Your task to perform on an android device: change the clock style Image 0: 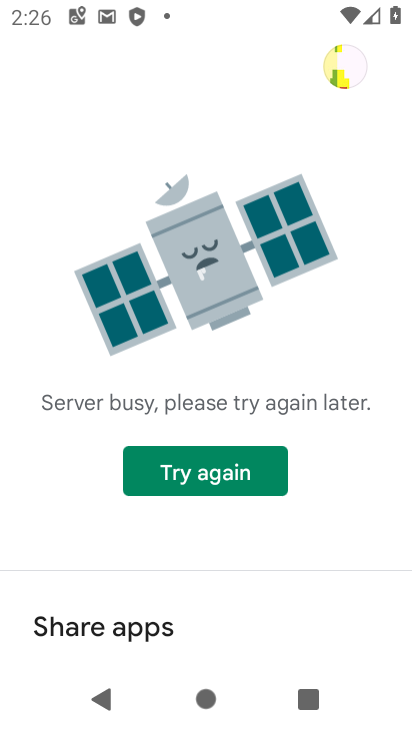
Step 0: press home button
Your task to perform on an android device: change the clock style Image 1: 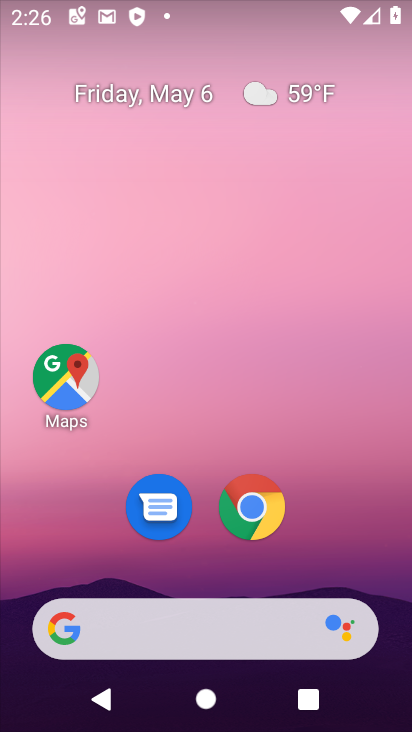
Step 1: drag from (284, 571) to (347, 104)
Your task to perform on an android device: change the clock style Image 2: 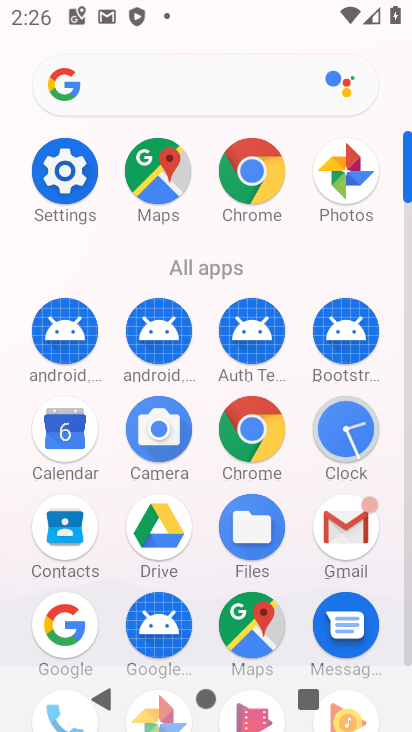
Step 2: click (352, 450)
Your task to perform on an android device: change the clock style Image 3: 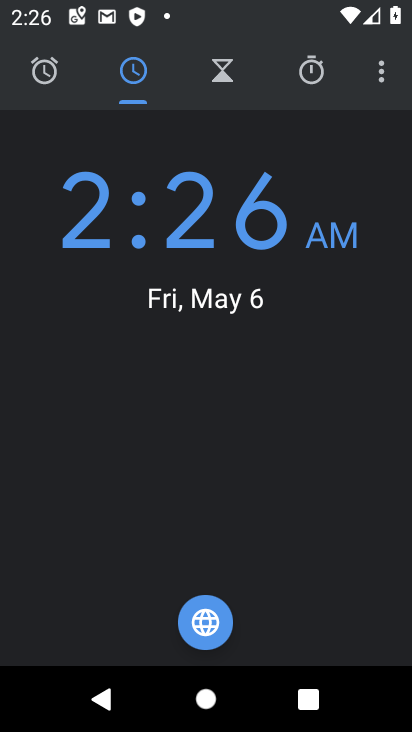
Step 3: click (377, 79)
Your task to perform on an android device: change the clock style Image 4: 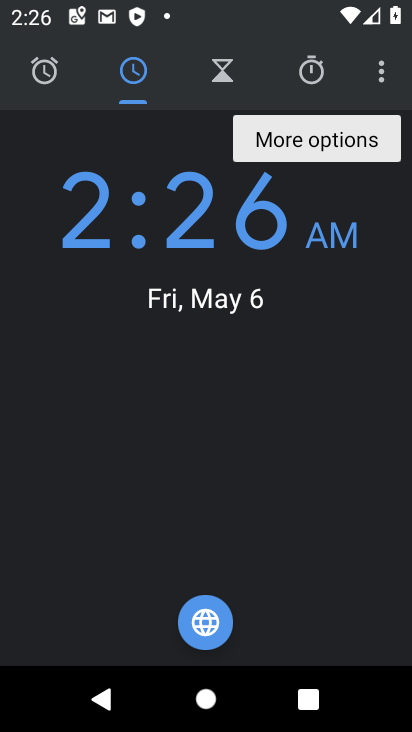
Step 4: click (384, 83)
Your task to perform on an android device: change the clock style Image 5: 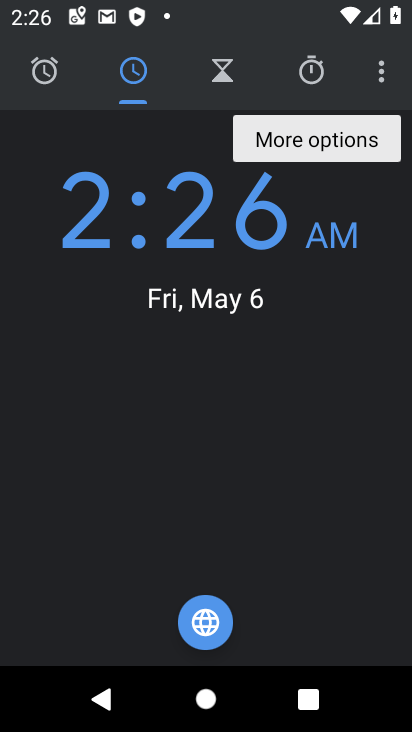
Step 5: click (384, 83)
Your task to perform on an android device: change the clock style Image 6: 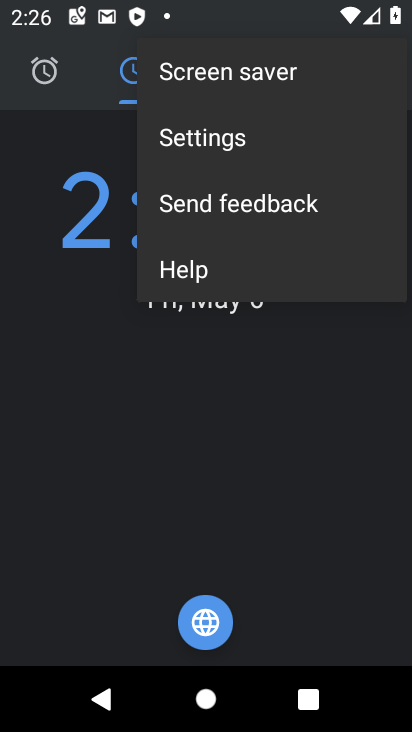
Step 6: click (273, 135)
Your task to perform on an android device: change the clock style Image 7: 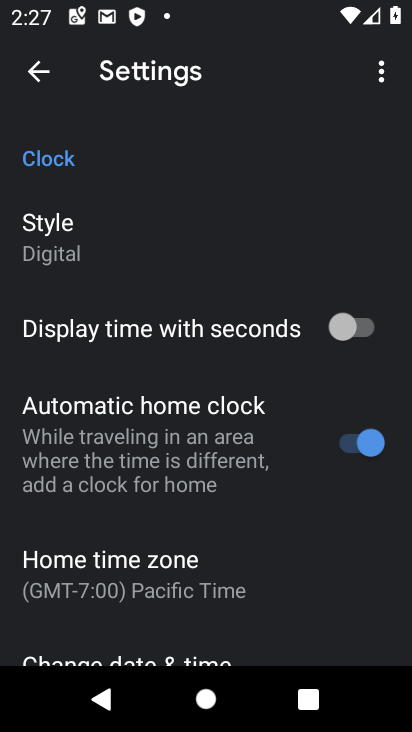
Step 7: click (112, 242)
Your task to perform on an android device: change the clock style Image 8: 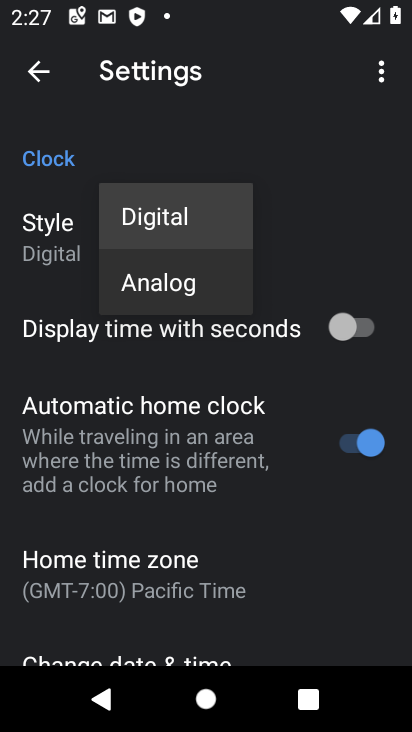
Step 8: click (191, 282)
Your task to perform on an android device: change the clock style Image 9: 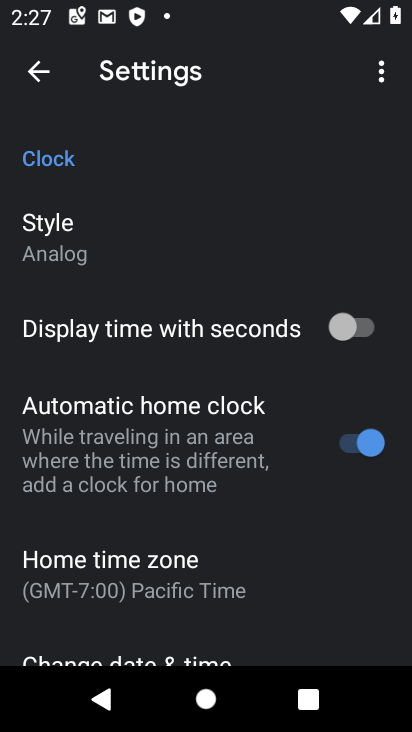
Step 9: task complete